Your task to perform on an android device: check out phone information Image 0: 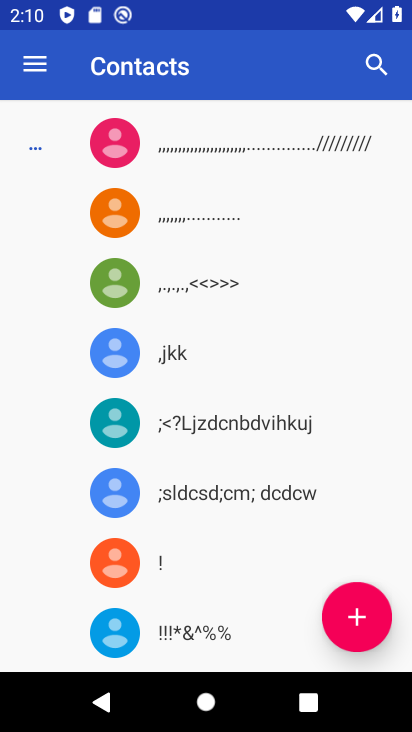
Step 0: press back button
Your task to perform on an android device: check out phone information Image 1: 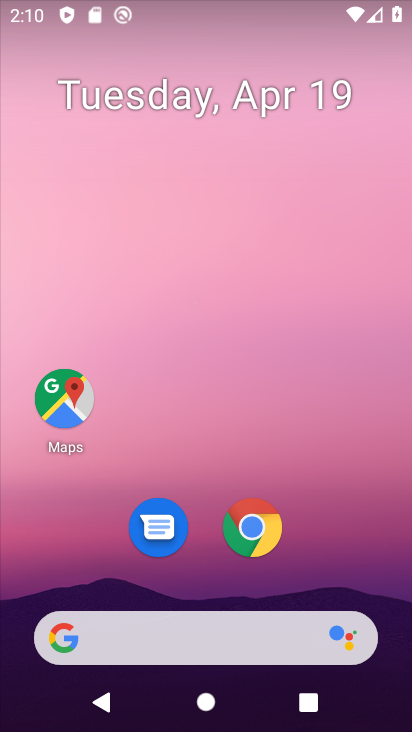
Step 1: drag from (242, 400) to (292, 107)
Your task to perform on an android device: check out phone information Image 2: 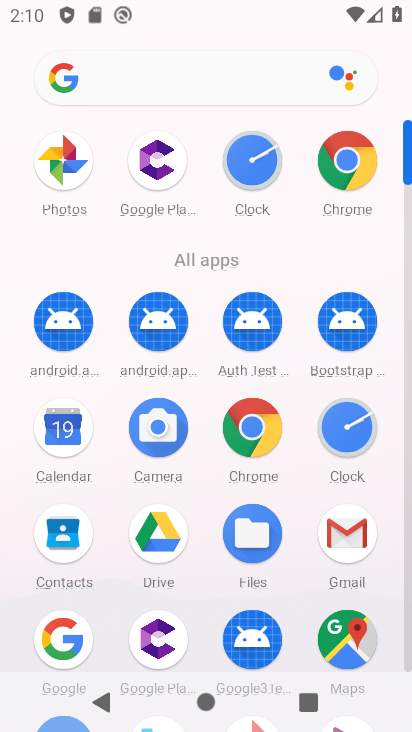
Step 2: drag from (128, 511) to (162, 222)
Your task to perform on an android device: check out phone information Image 3: 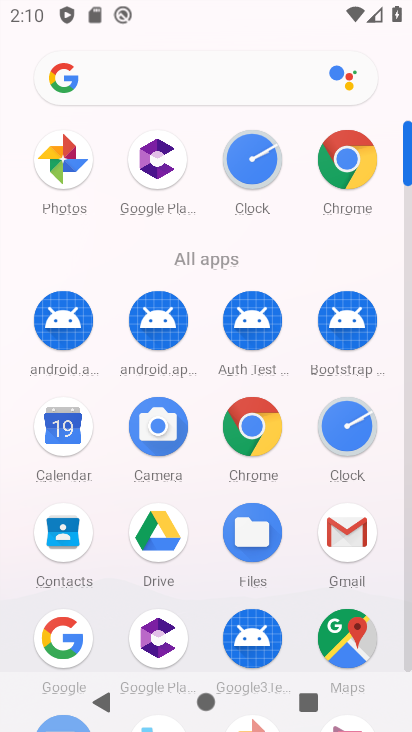
Step 3: drag from (225, 478) to (225, 265)
Your task to perform on an android device: check out phone information Image 4: 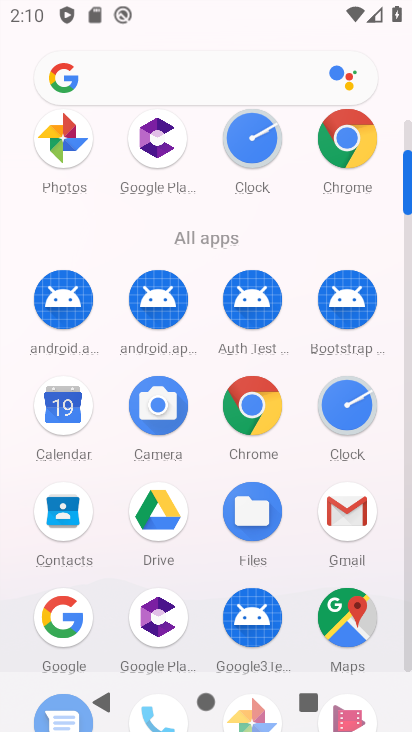
Step 4: click (158, 707)
Your task to perform on an android device: check out phone information Image 5: 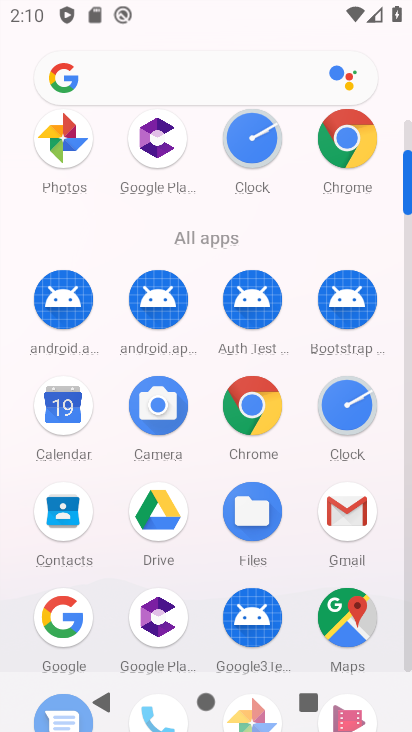
Step 5: drag from (195, 293) to (195, 142)
Your task to perform on an android device: check out phone information Image 6: 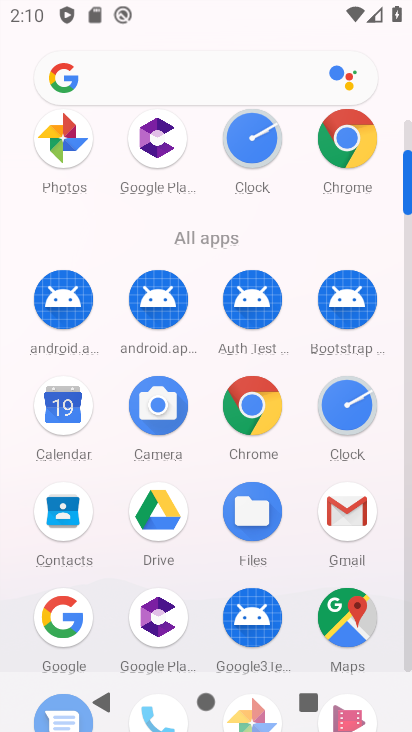
Step 6: drag from (315, 512) to (301, 283)
Your task to perform on an android device: check out phone information Image 7: 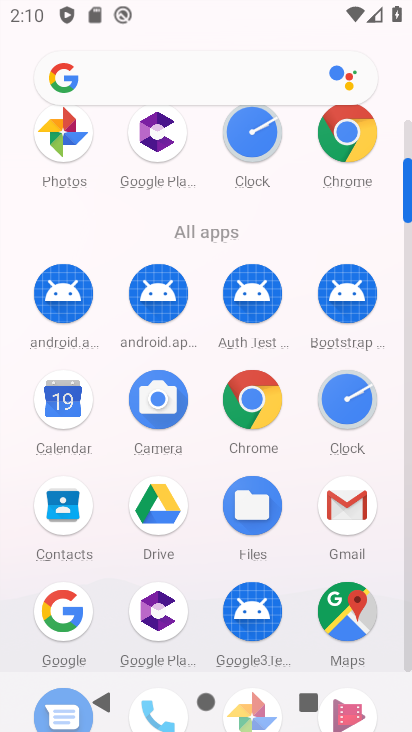
Step 7: drag from (169, 640) to (223, 196)
Your task to perform on an android device: check out phone information Image 8: 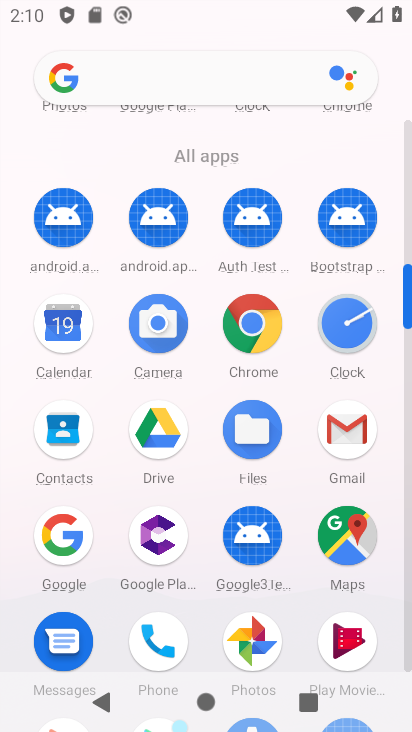
Step 8: click (167, 640)
Your task to perform on an android device: check out phone information Image 9: 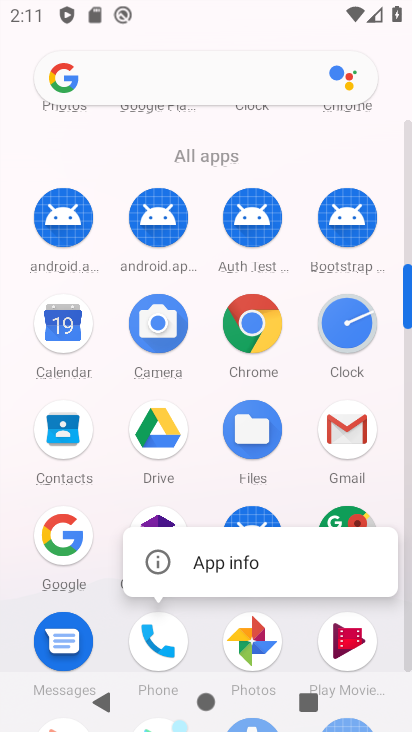
Step 9: click (202, 558)
Your task to perform on an android device: check out phone information Image 10: 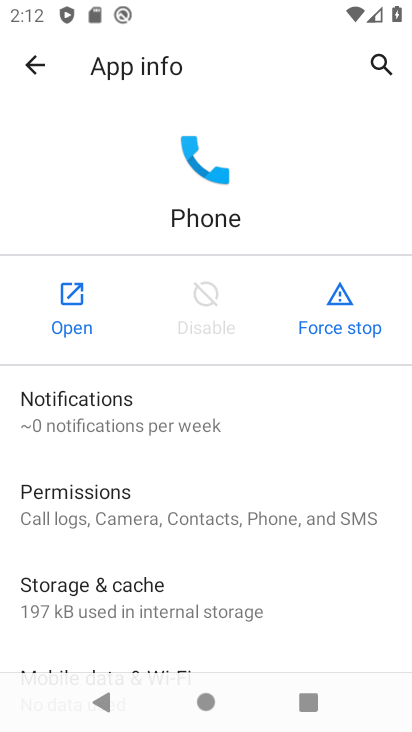
Step 10: drag from (132, 585) to (192, 178)
Your task to perform on an android device: check out phone information Image 11: 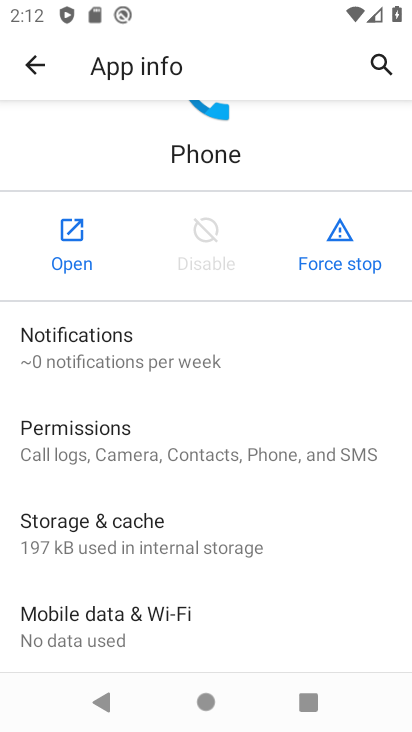
Step 11: drag from (169, 640) to (212, 233)
Your task to perform on an android device: check out phone information Image 12: 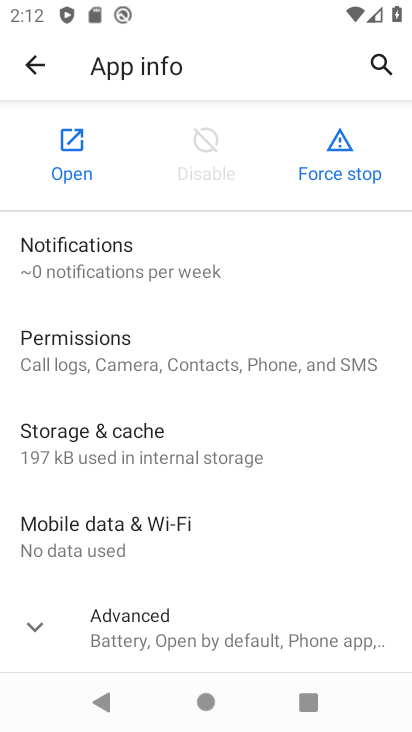
Step 12: click (155, 639)
Your task to perform on an android device: check out phone information Image 13: 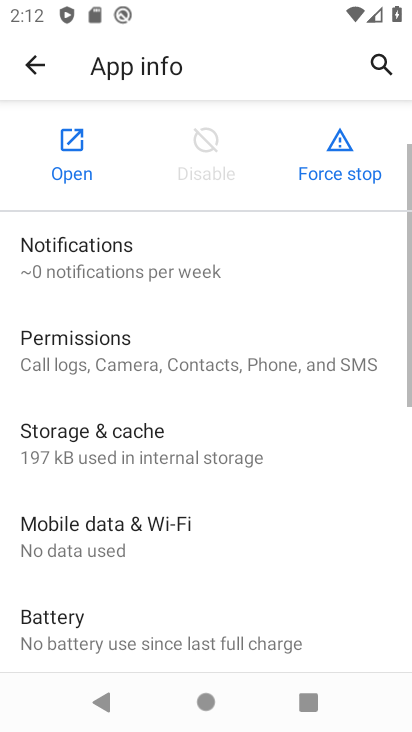
Step 13: task complete